Your task to perform on an android device: delete a single message in the gmail app Image 0: 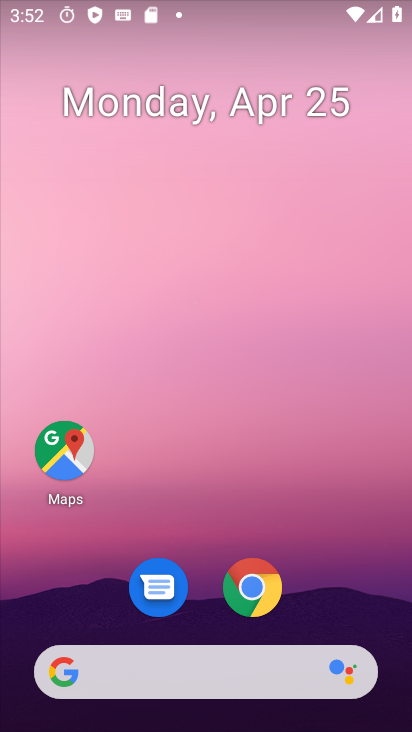
Step 0: drag from (363, 564) to (320, 110)
Your task to perform on an android device: delete a single message in the gmail app Image 1: 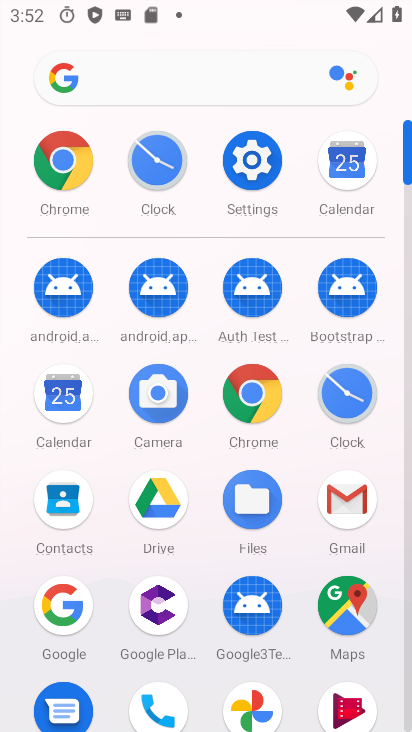
Step 1: drag from (293, 508) to (305, 103)
Your task to perform on an android device: delete a single message in the gmail app Image 2: 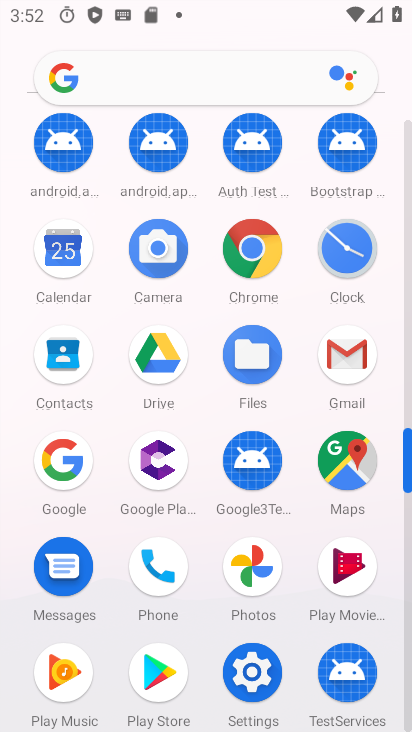
Step 2: click (347, 368)
Your task to perform on an android device: delete a single message in the gmail app Image 3: 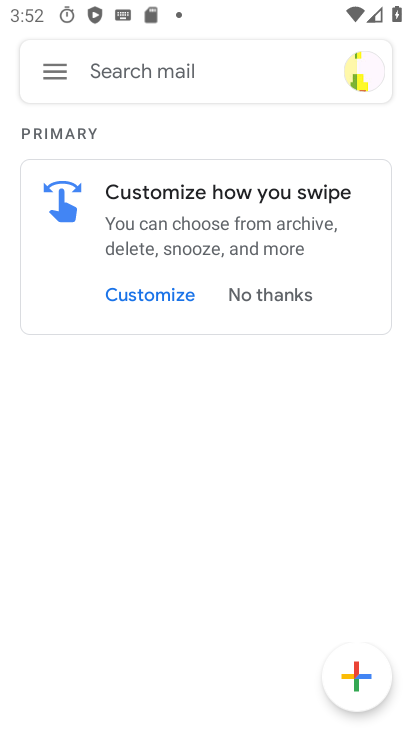
Step 3: click (59, 72)
Your task to perform on an android device: delete a single message in the gmail app Image 4: 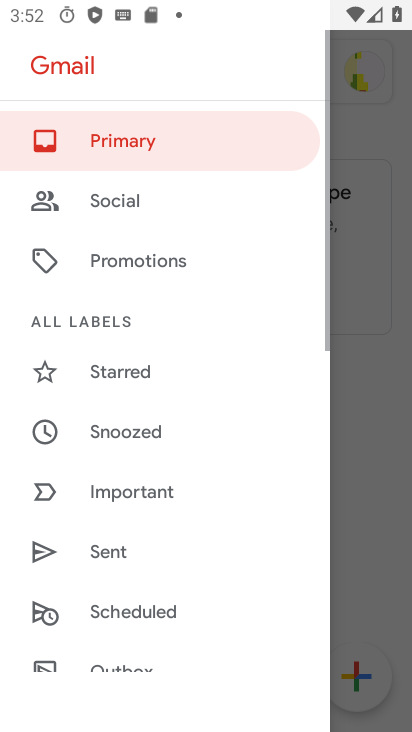
Step 4: drag from (157, 629) to (212, 119)
Your task to perform on an android device: delete a single message in the gmail app Image 5: 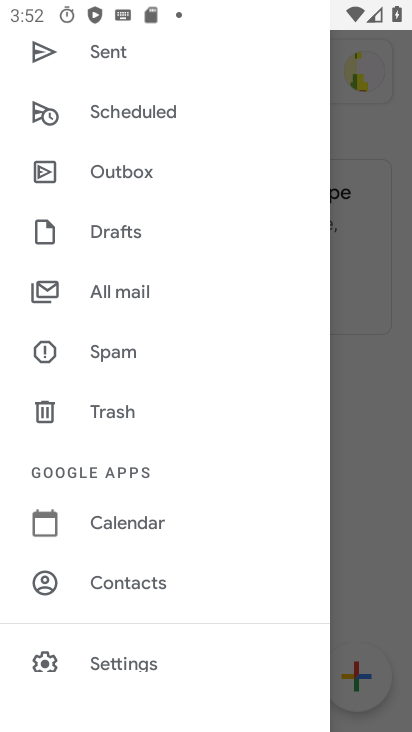
Step 5: click (112, 299)
Your task to perform on an android device: delete a single message in the gmail app Image 6: 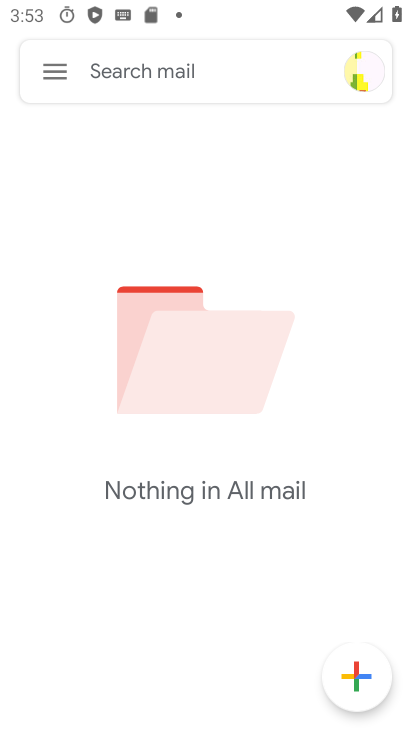
Step 6: press home button
Your task to perform on an android device: delete a single message in the gmail app Image 7: 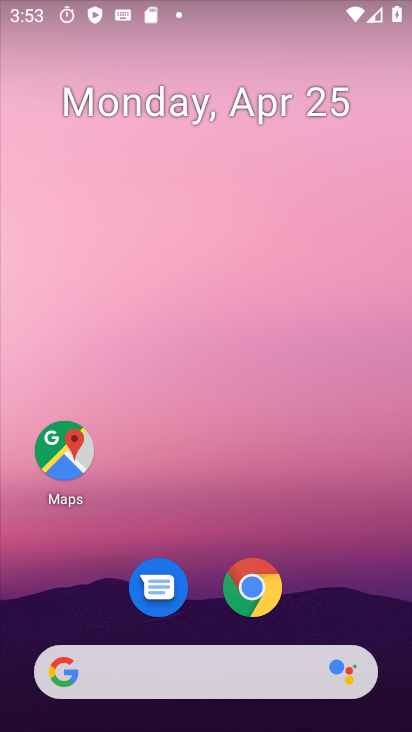
Step 7: drag from (341, 613) to (269, 87)
Your task to perform on an android device: delete a single message in the gmail app Image 8: 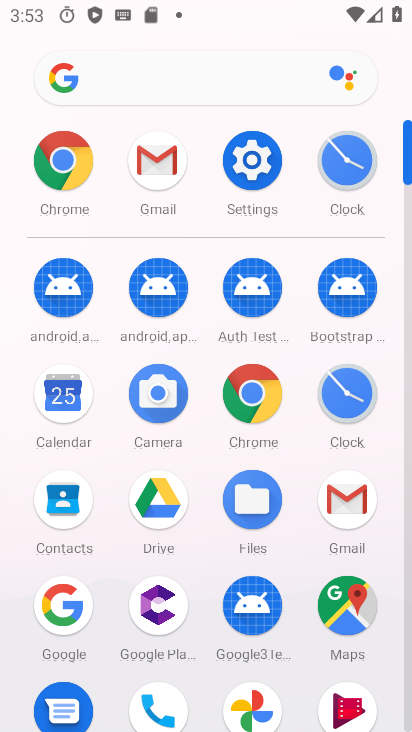
Step 8: click (169, 174)
Your task to perform on an android device: delete a single message in the gmail app Image 9: 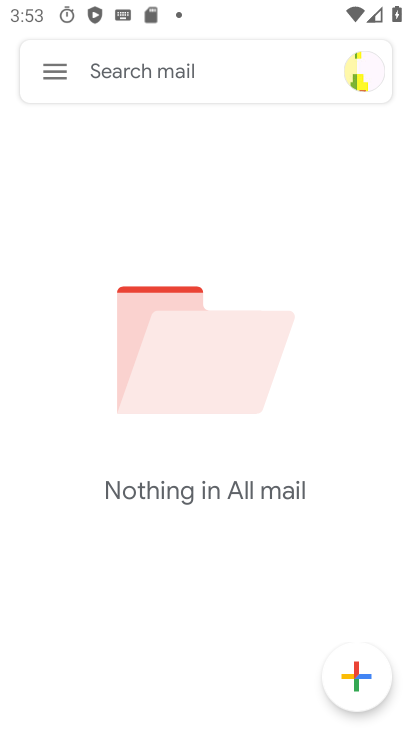
Step 9: task complete